Your task to perform on an android device: delete location history Image 0: 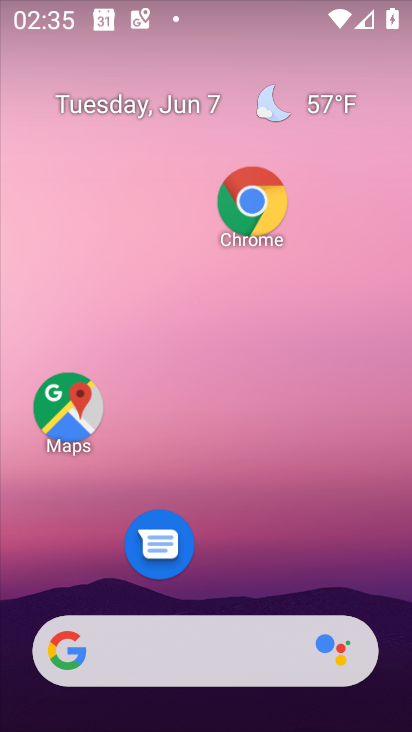
Step 0: drag from (279, 568) to (321, 193)
Your task to perform on an android device: delete location history Image 1: 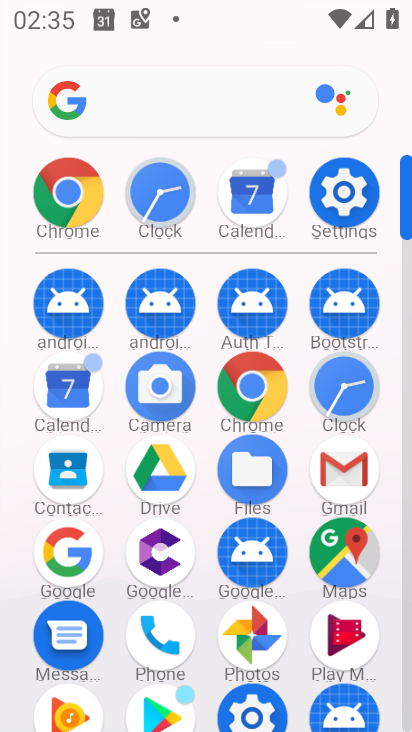
Step 1: click (349, 172)
Your task to perform on an android device: delete location history Image 2: 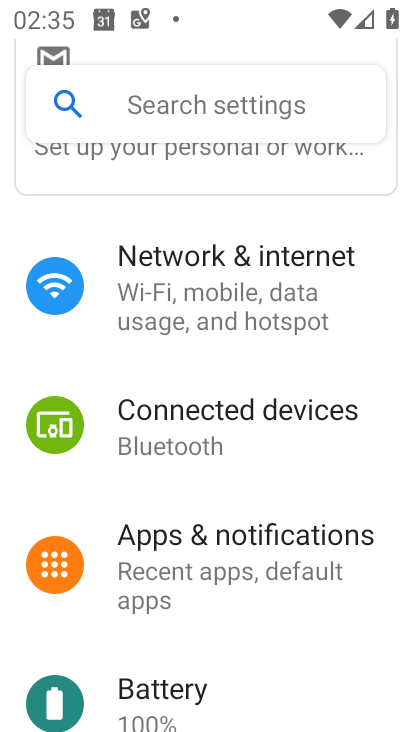
Step 2: drag from (181, 588) to (250, 182)
Your task to perform on an android device: delete location history Image 3: 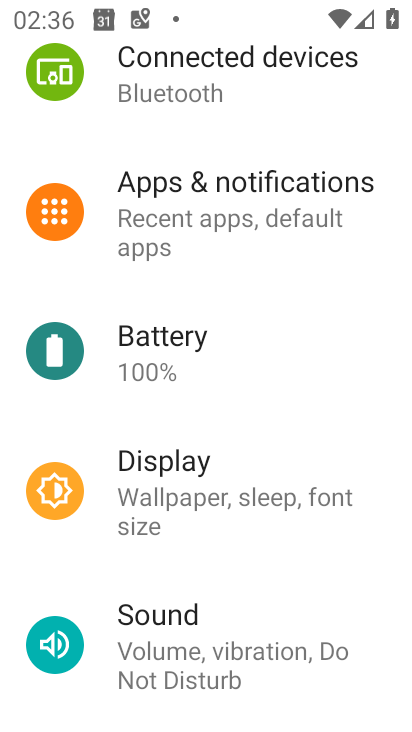
Step 3: drag from (174, 629) to (251, 283)
Your task to perform on an android device: delete location history Image 4: 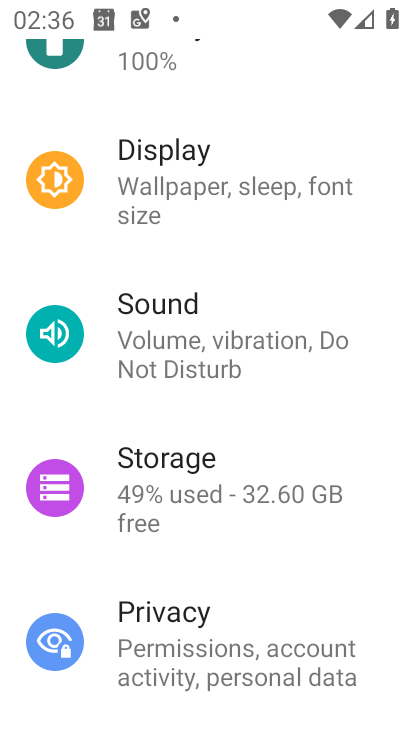
Step 4: drag from (177, 628) to (245, 259)
Your task to perform on an android device: delete location history Image 5: 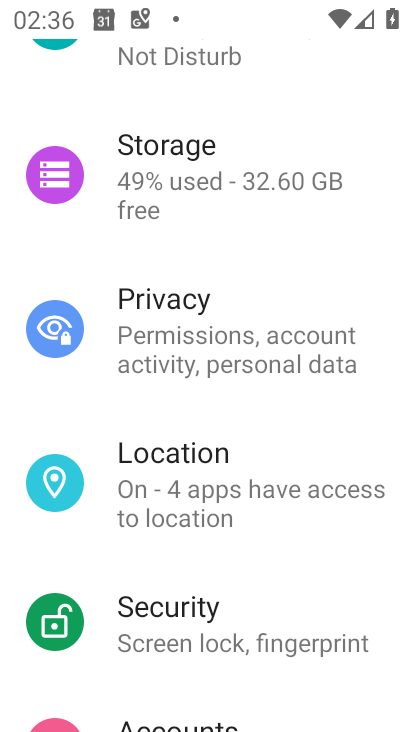
Step 5: click (161, 457)
Your task to perform on an android device: delete location history Image 6: 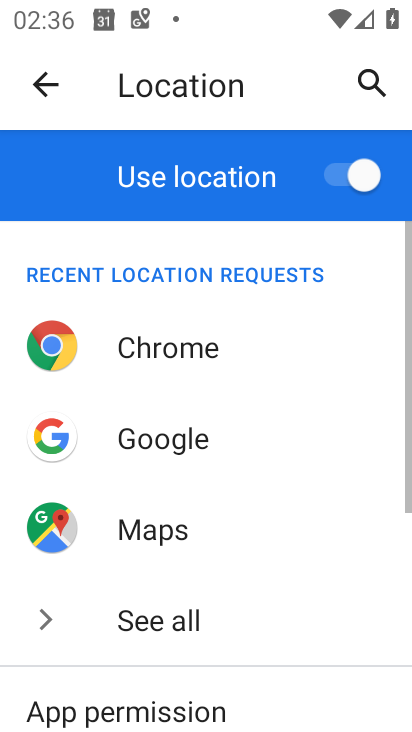
Step 6: drag from (127, 619) to (221, 294)
Your task to perform on an android device: delete location history Image 7: 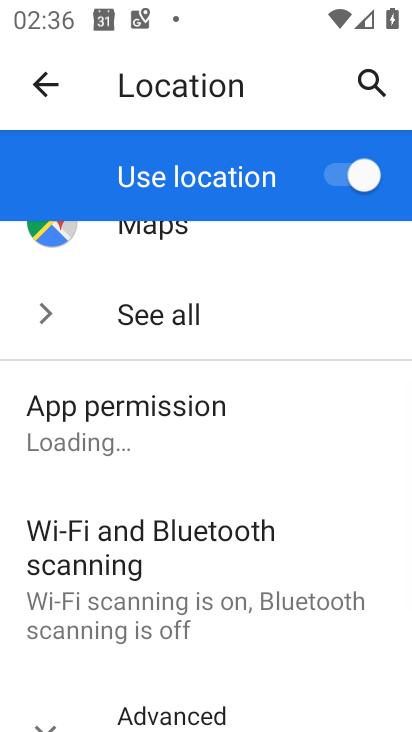
Step 7: drag from (77, 631) to (189, 338)
Your task to perform on an android device: delete location history Image 8: 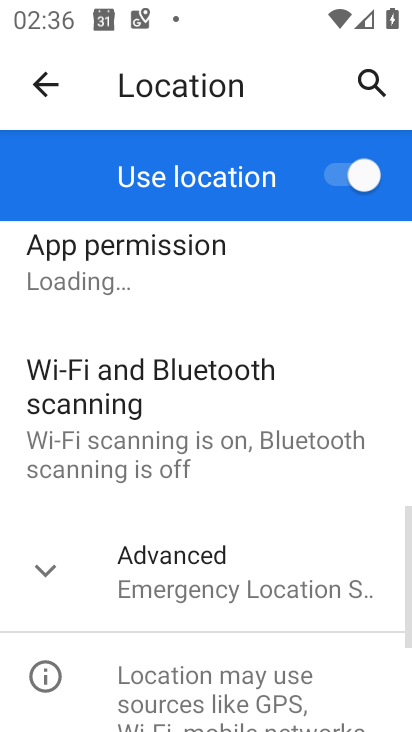
Step 8: drag from (191, 642) to (252, 340)
Your task to perform on an android device: delete location history Image 9: 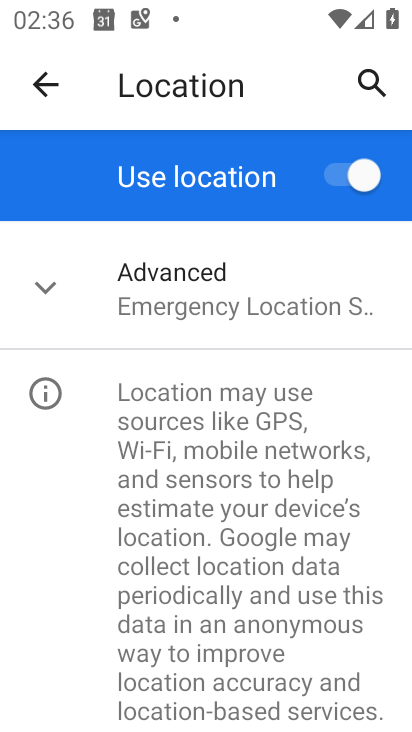
Step 9: click (177, 315)
Your task to perform on an android device: delete location history Image 10: 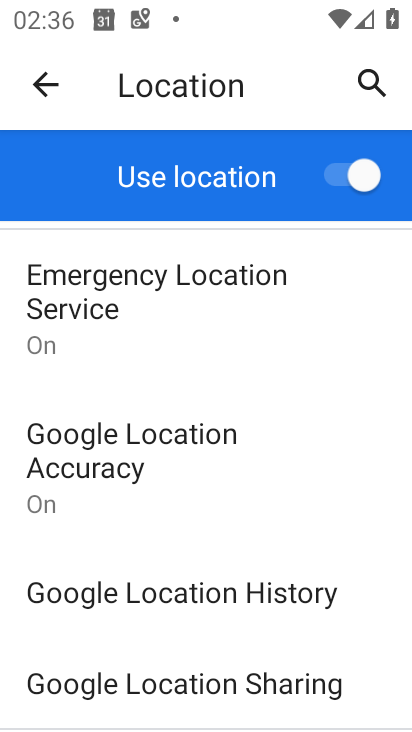
Step 10: drag from (130, 560) to (154, 251)
Your task to perform on an android device: delete location history Image 11: 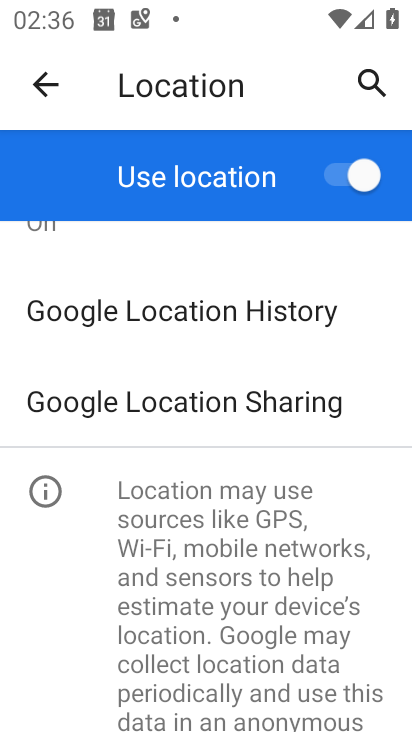
Step 11: click (177, 317)
Your task to perform on an android device: delete location history Image 12: 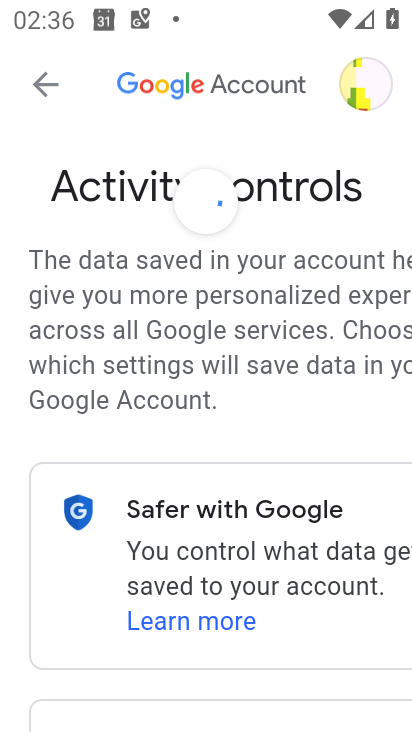
Step 12: task complete